Your task to perform on an android device: change your default location settings in chrome Image 0: 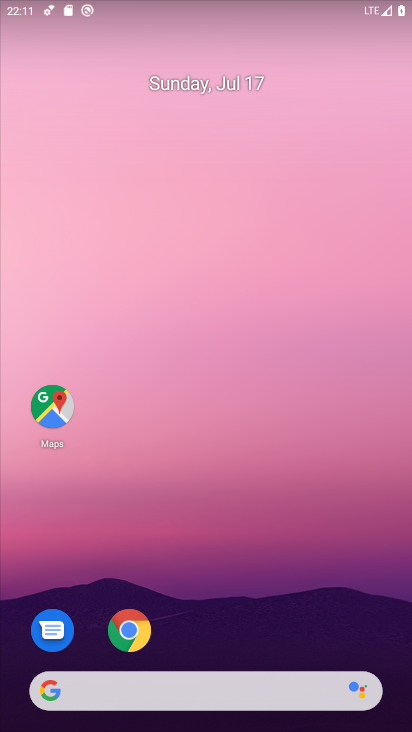
Step 0: drag from (232, 668) to (198, 0)
Your task to perform on an android device: change your default location settings in chrome Image 1: 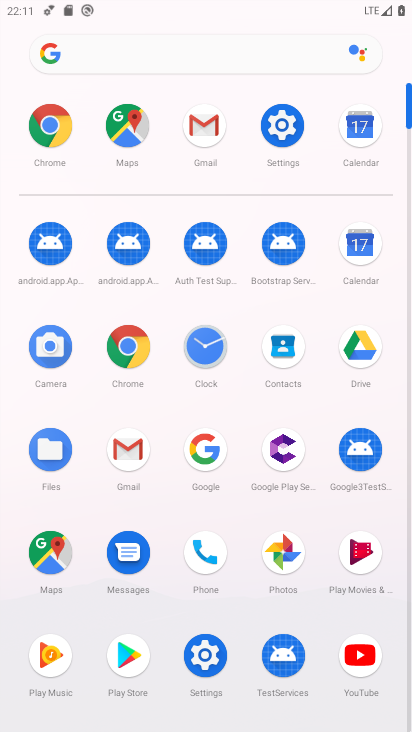
Step 1: click (121, 333)
Your task to perform on an android device: change your default location settings in chrome Image 2: 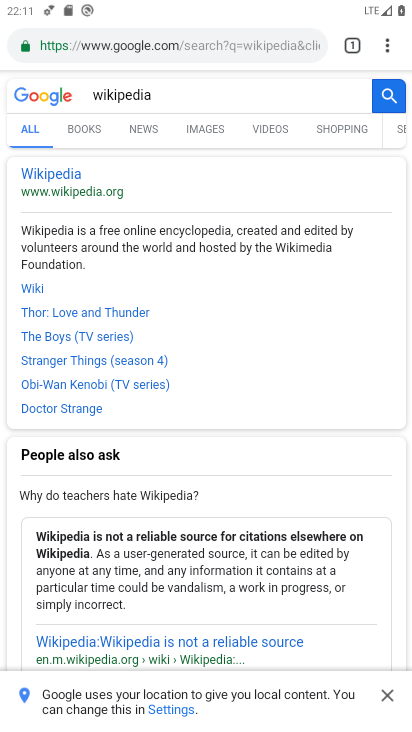
Step 2: click (386, 54)
Your task to perform on an android device: change your default location settings in chrome Image 3: 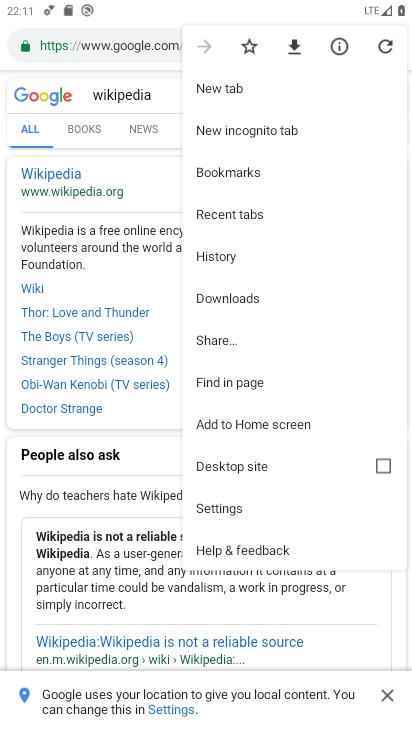
Step 3: click (226, 509)
Your task to perform on an android device: change your default location settings in chrome Image 4: 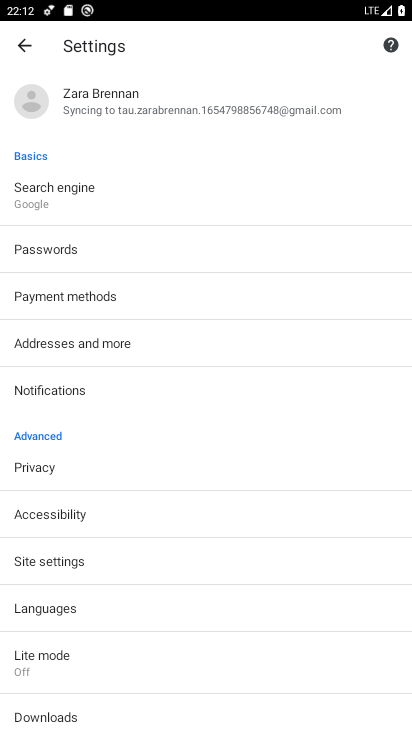
Step 4: click (87, 570)
Your task to perform on an android device: change your default location settings in chrome Image 5: 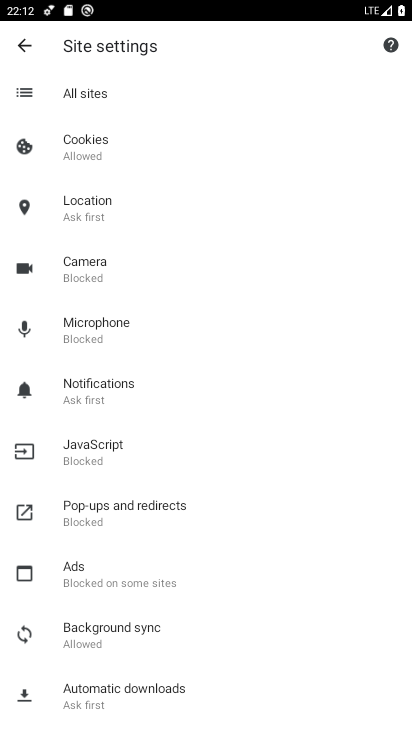
Step 5: click (98, 198)
Your task to perform on an android device: change your default location settings in chrome Image 6: 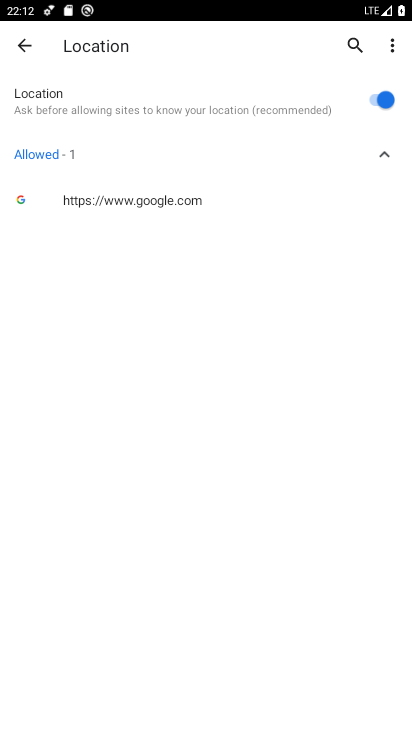
Step 6: click (358, 98)
Your task to perform on an android device: change your default location settings in chrome Image 7: 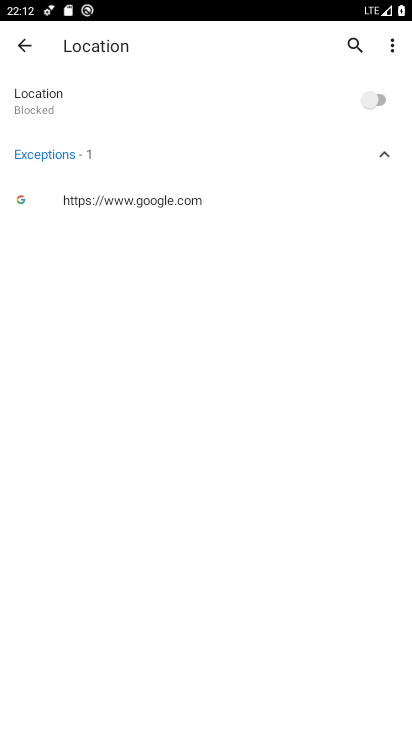
Step 7: task complete